Your task to perform on an android device: Set the phone to "Do not disturb". Image 0: 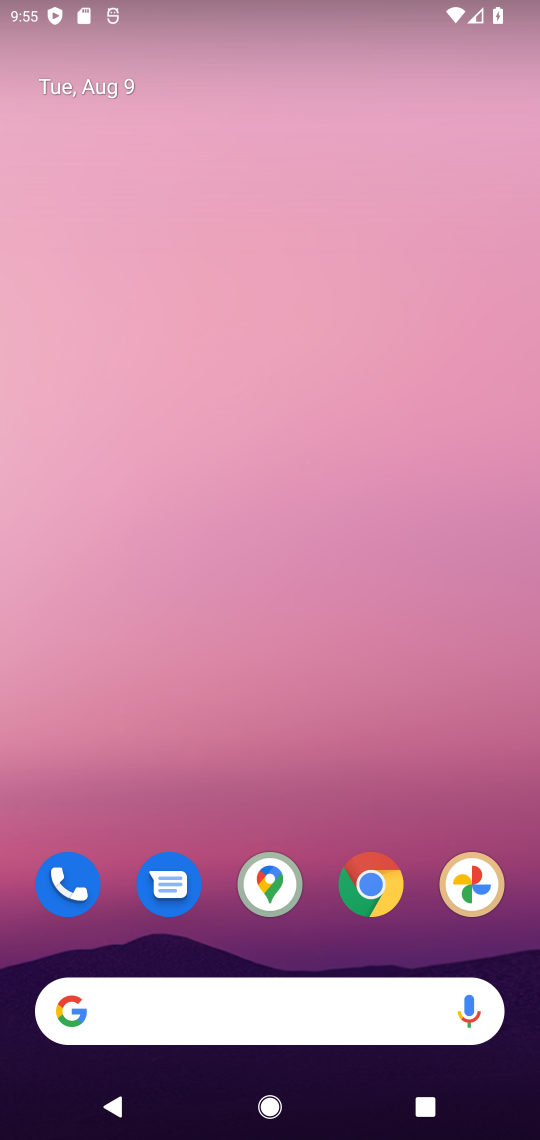
Step 0: drag from (220, 1010) to (313, 73)
Your task to perform on an android device: Set the phone to "Do not disturb". Image 1: 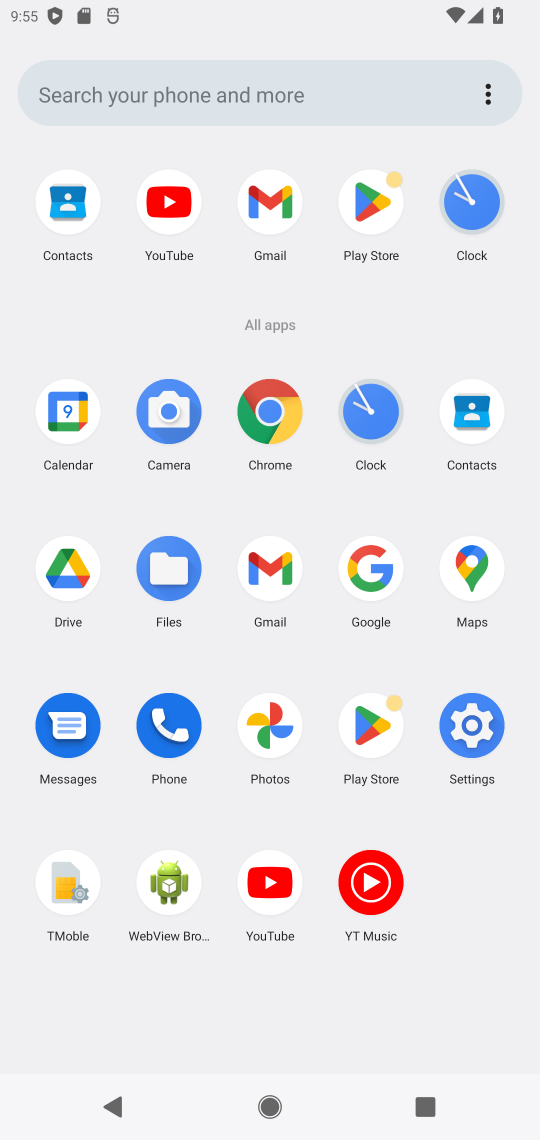
Step 1: click (476, 727)
Your task to perform on an android device: Set the phone to "Do not disturb". Image 2: 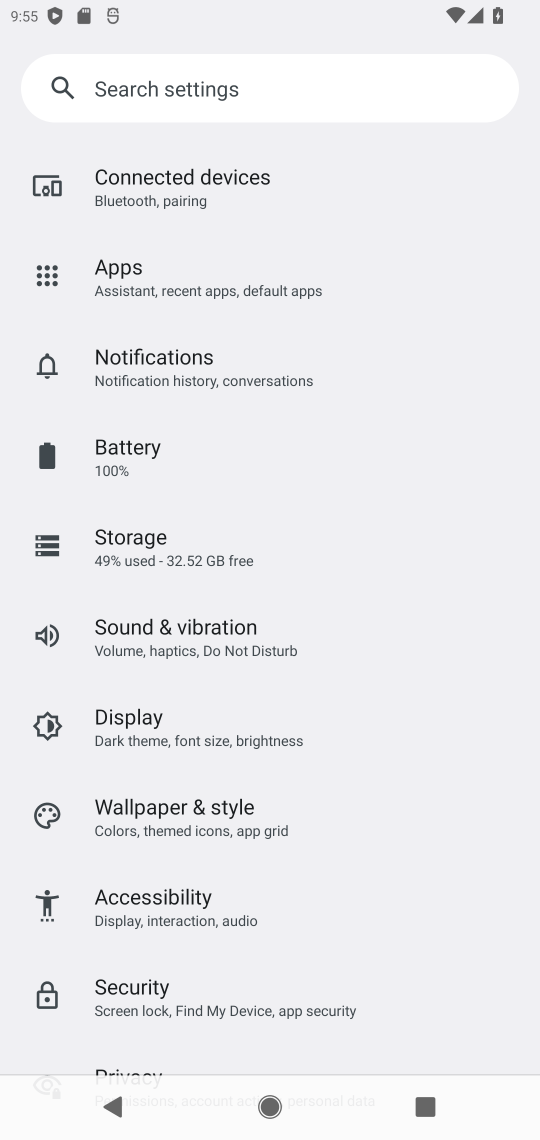
Step 2: click (231, 649)
Your task to perform on an android device: Set the phone to "Do not disturb". Image 3: 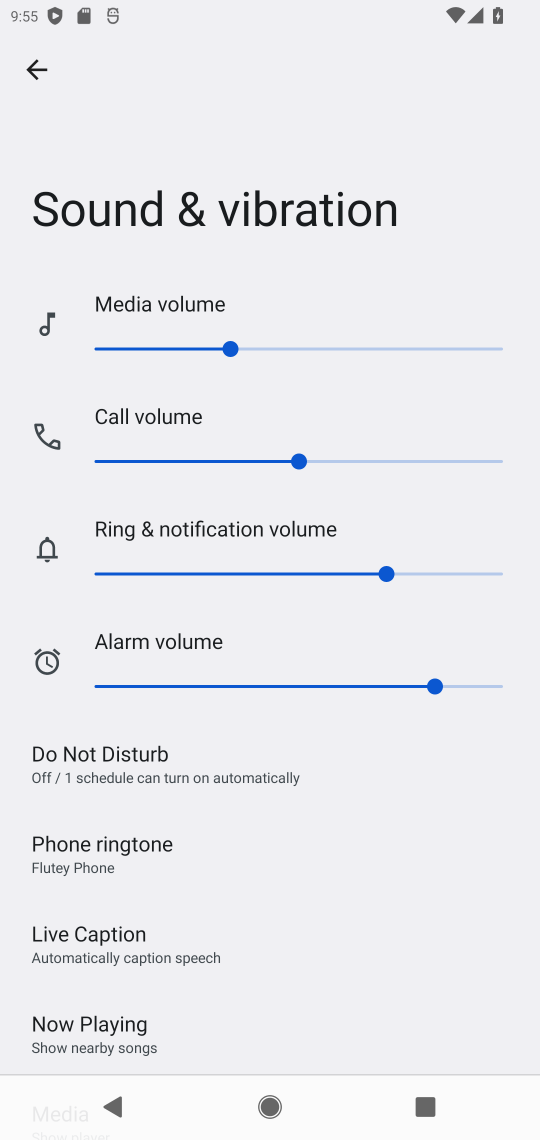
Step 3: click (214, 774)
Your task to perform on an android device: Set the phone to "Do not disturb". Image 4: 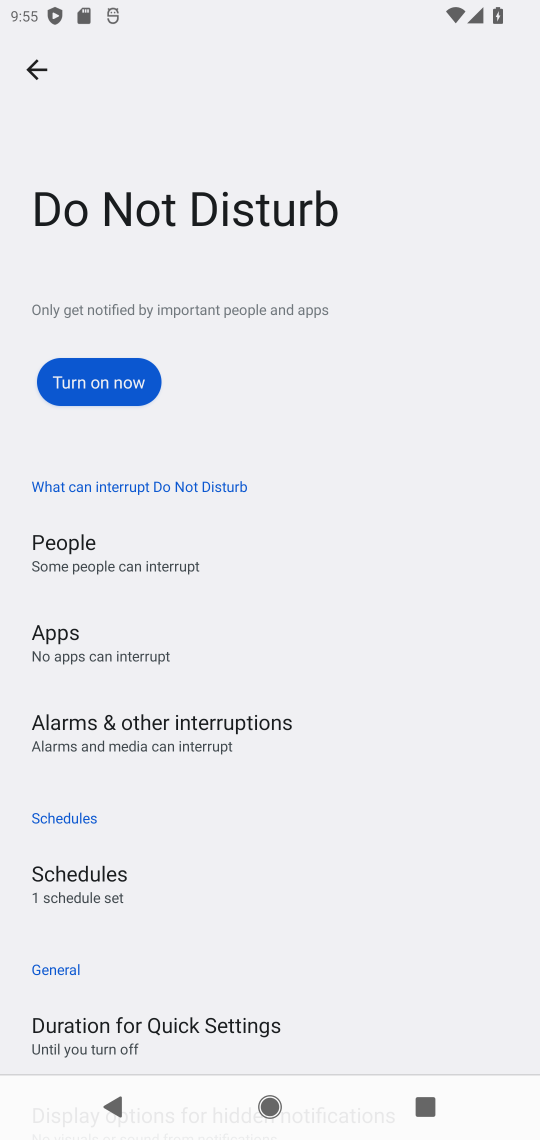
Step 4: click (123, 389)
Your task to perform on an android device: Set the phone to "Do not disturb". Image 5: 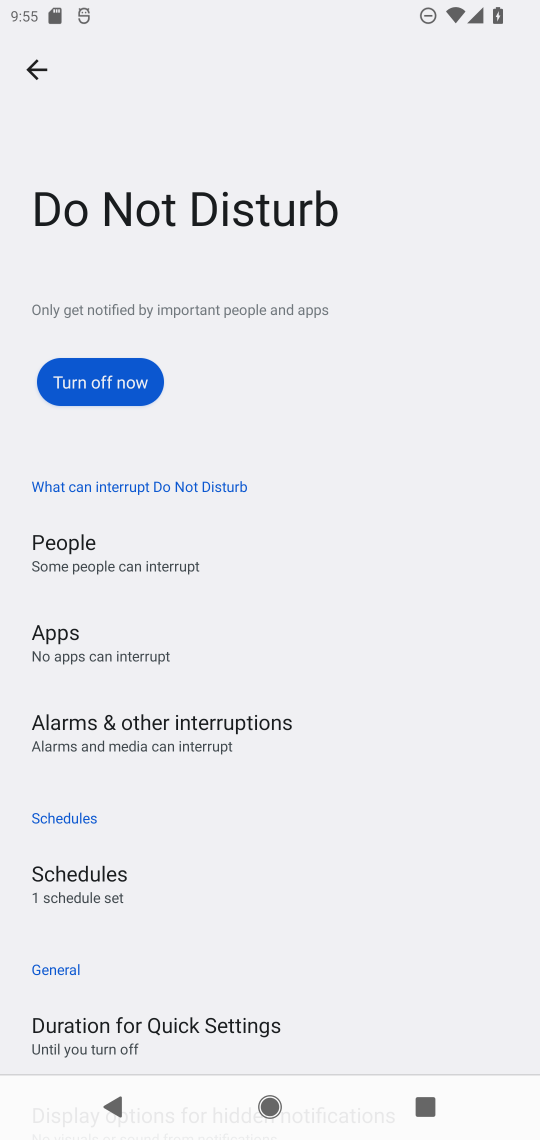
Step 5: task complete